Your task to perform on an android device: Search for seafood restaurants on Google Maps Image 0: 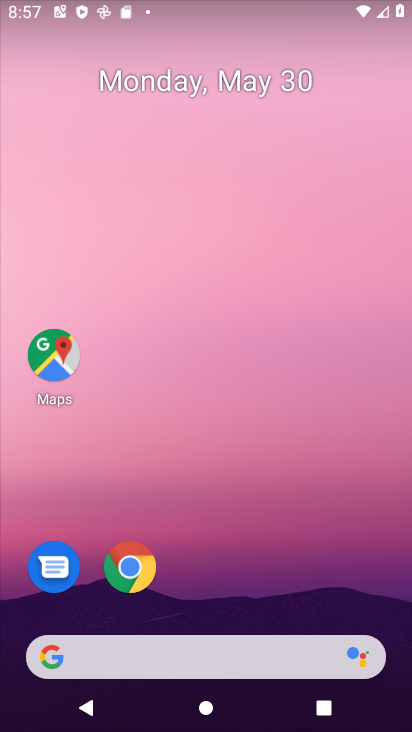
Step 0: click (51, 346)
Your task to perform on an android device: Search for seafood restaurants on Google Maps Image 1: 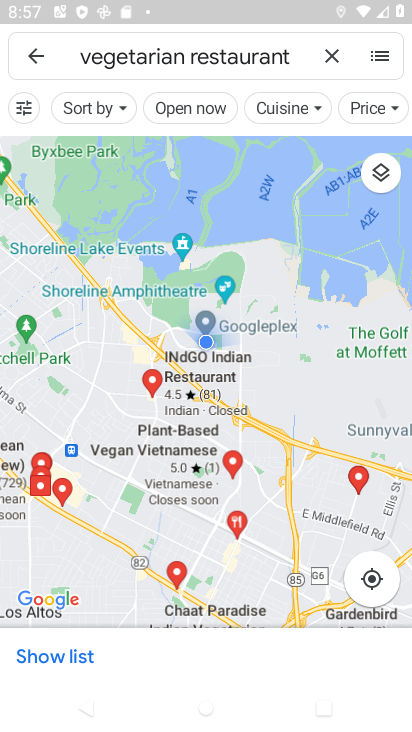
Step 1: click (339, 48)
Your task to perform on an android device: Search for seafood restaurants on Google Maps Image 2: 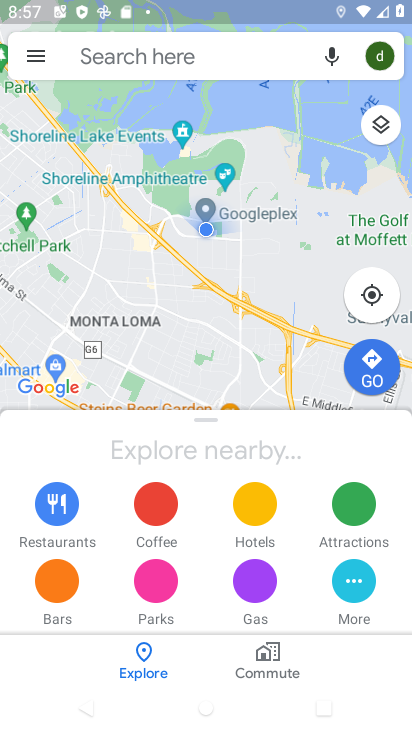
Step 2: click (260, 61)
Your task to perform on an android device: Search for seafood restaurants on Google Maps Image 3: 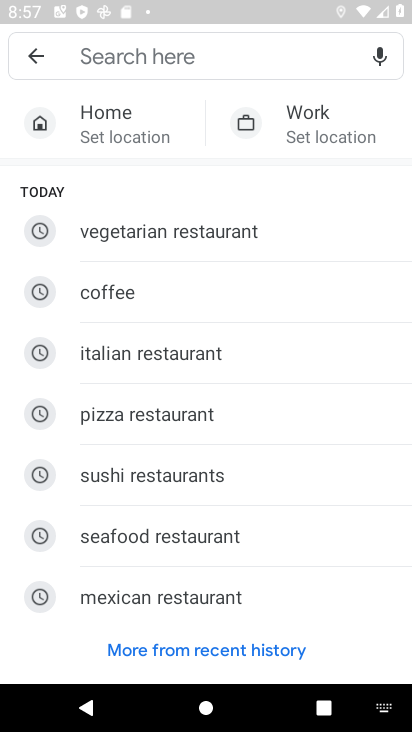
Step 3: click (174, 548)
Your task to perform on an android device: Search for seafood restaurants on Google Maps Image 4: 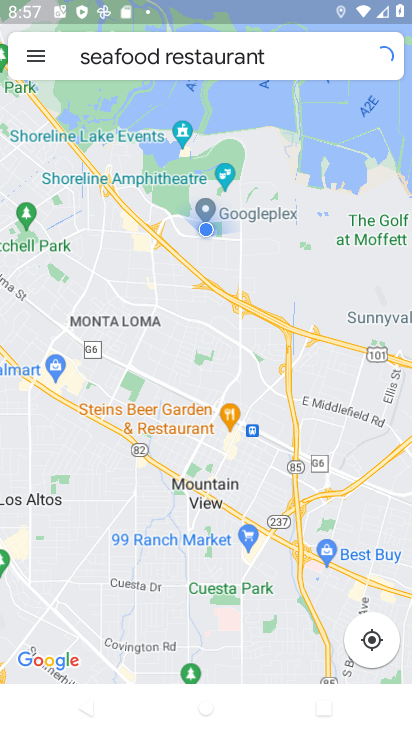
Step 4: task complete